Your task to perform on an android device: Go to calendar. Show me events next week Image 0: 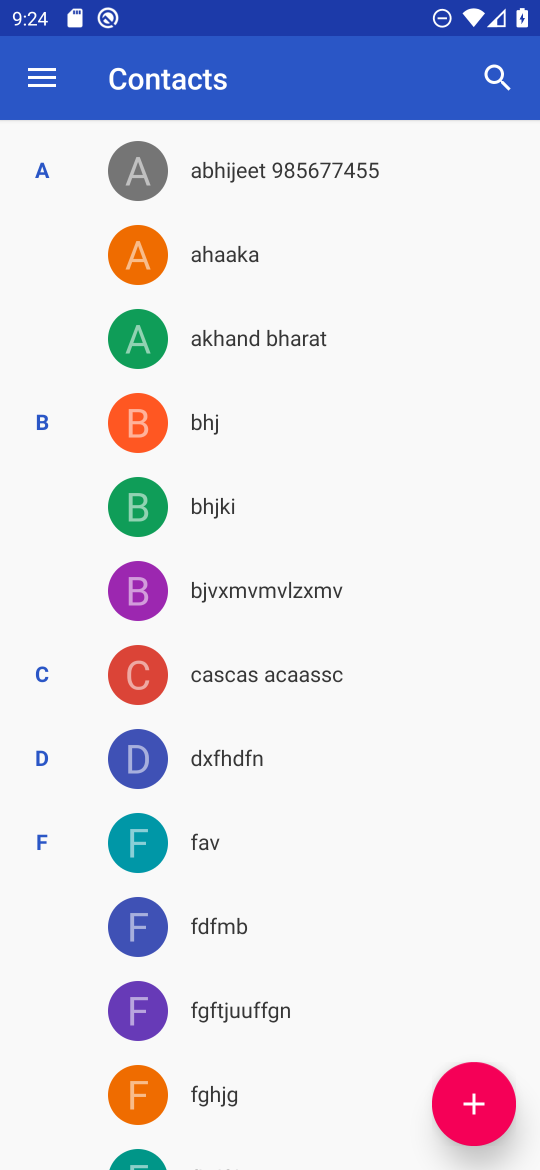
Step 0: press home button
Your task to perform on an android device: Go to calendar. Show me events next week Image 1: 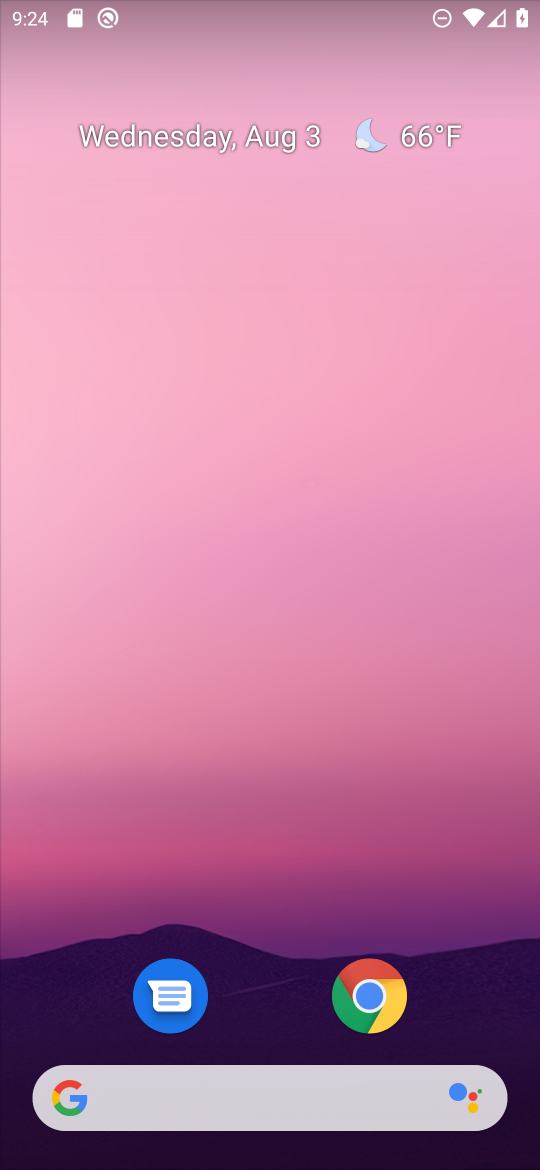
Step 1: drag from (283, 954) to (301, 30)
Your task to perform on an android device: Go to calendar. Show me events next week Image 2: 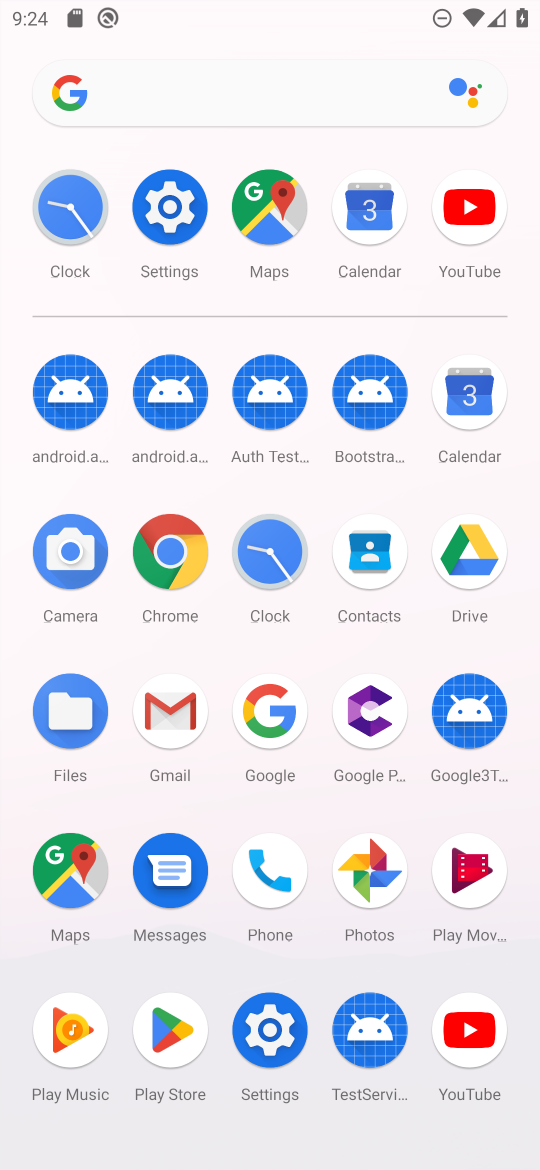
Step 2: click (366, 217)
Your task to perform on an android device: Go to calendar. Show me events next week Image 3: 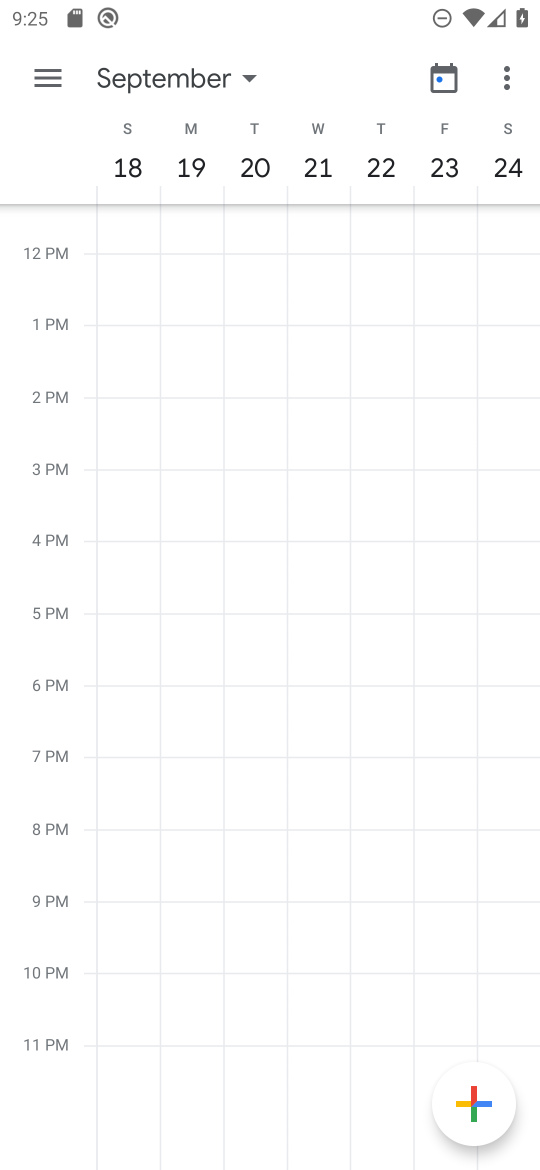
Step 3: task complete